Your task to perform on an android device: Open Yahoo.com Image 0: 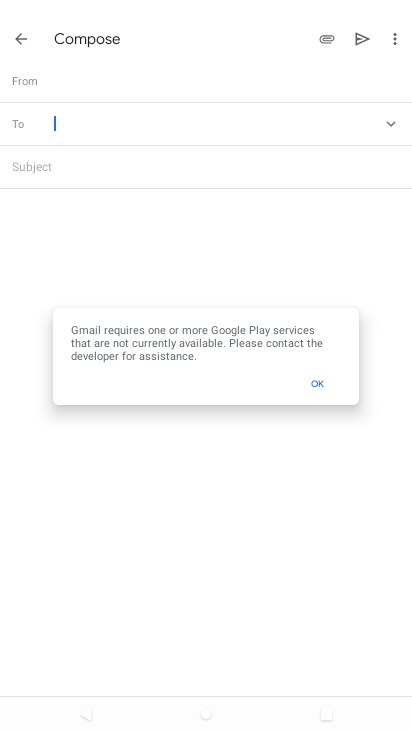
Step 0: press home button
Your task to perform on an android device: Open Yahoo.com Image 1: 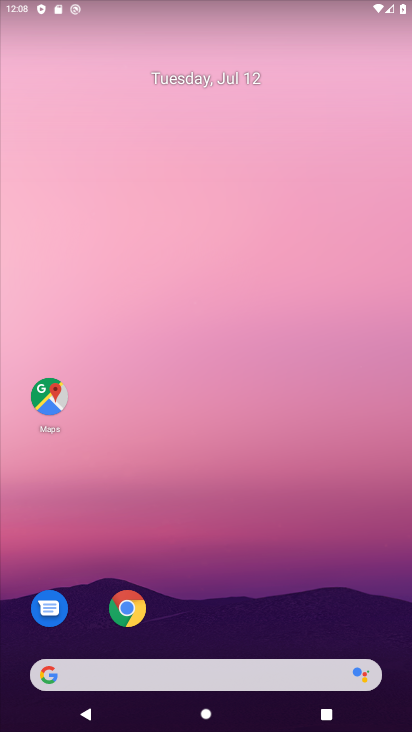
Step 1: click (119, 604)
Your task to perform on an android device: Open Yahoo.com Image 2: 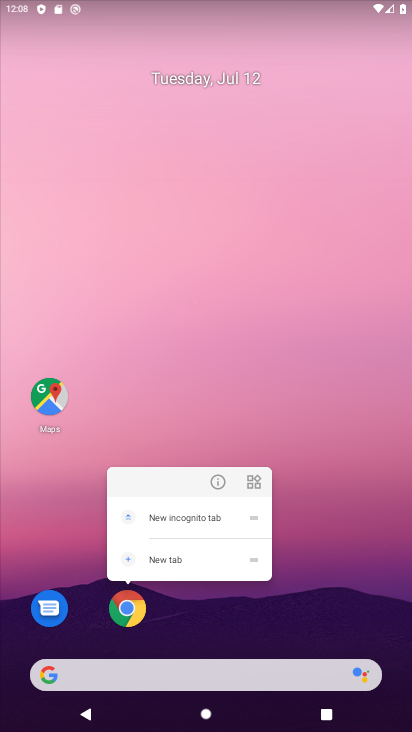
Step 2: click (130, 608)
Your task to perform on an android device: Open Yahoo.com Image 3: 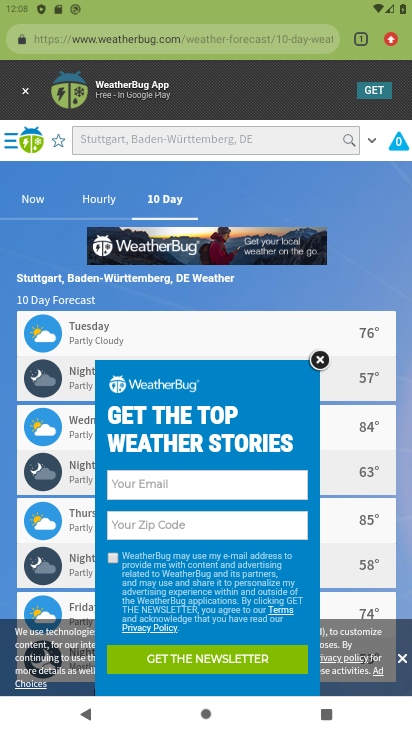
Step 3: click (365, 39)
Your task to perform on an android device: Open Yahoo.com Image 4: 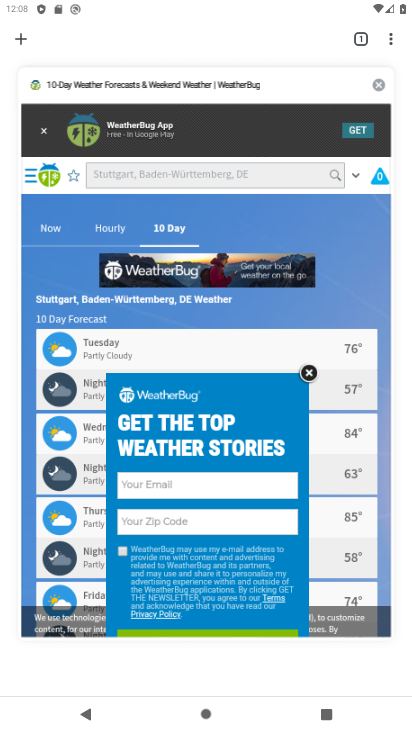
Step 4: click (380, 82)
Your task to perform on an android device: Open Yahoo.com Image 5: 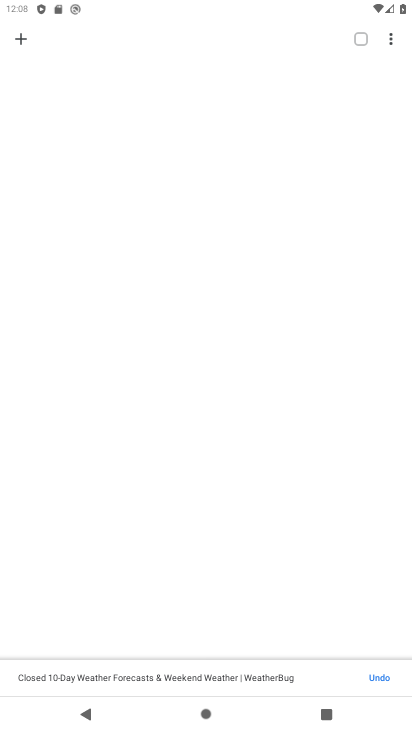
Step 5: click (20, 36)
Your task to perform on an android device: Open Yahoo.com Image 6: 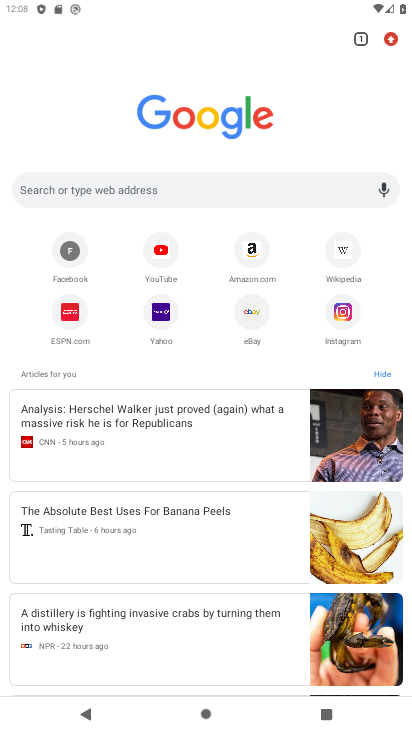
Step 6: click (169, 309)
Your task to perform on an android device: Open Yahoo.com Image 7: 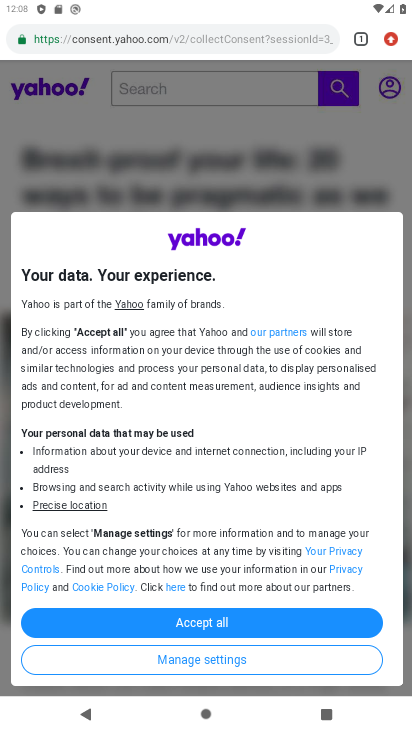
Step 7: task complete